Your task to perform on an android device: turn on location history Image 0: 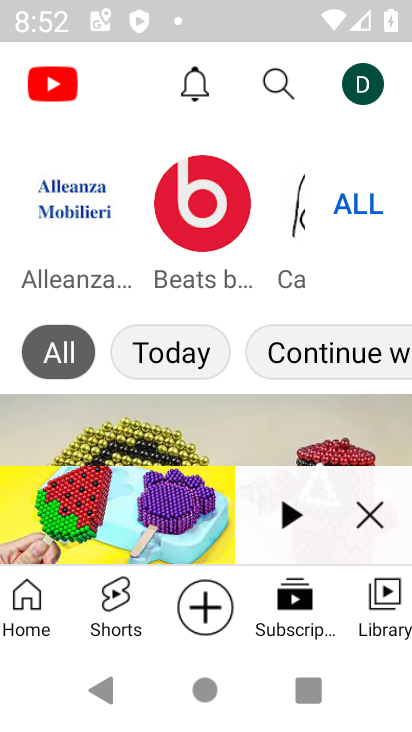
Step 0: press home button
Your task to perform on an android device: turn on location history Image 1: 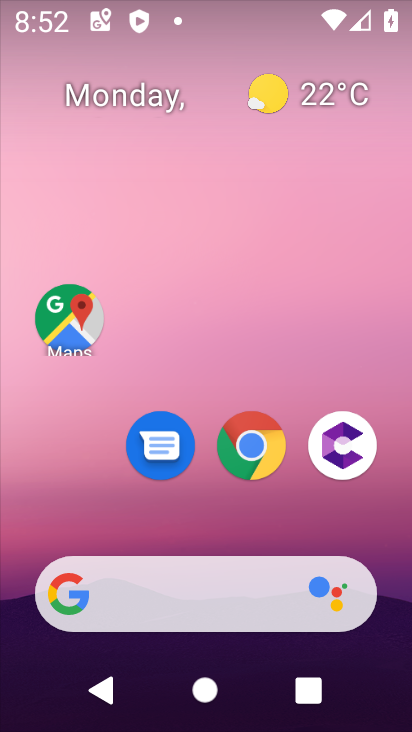
Step 1: drag from (268, 303) to (237, 86)
Your task to perform on an android device: turn on location history Image 2: 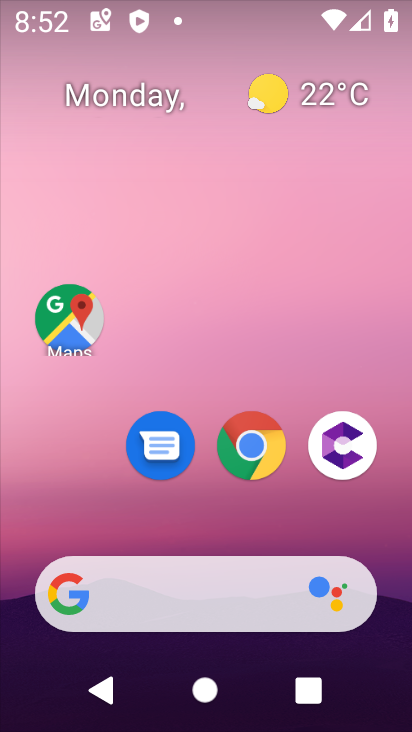
Step 2: drag from (220, 310) to (229, 1)
Your task to perform on an android device: turn on location history Image 3: 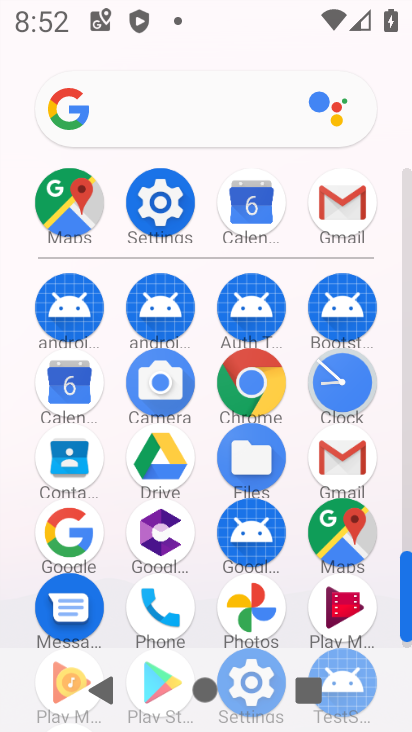
Step 3: click (172, 193)
Your task to perform on an android device: turn on location history Image 4: 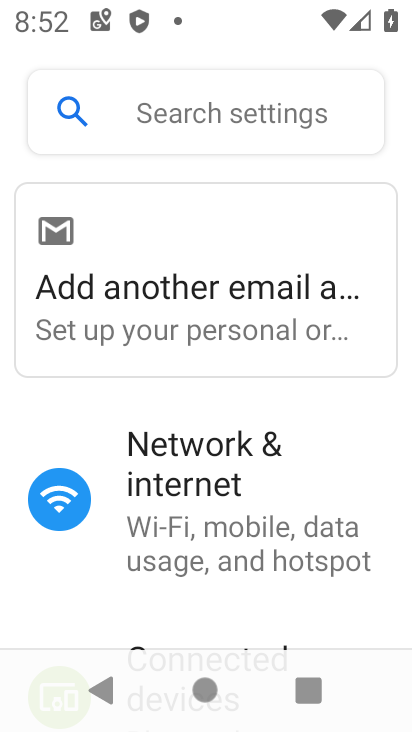
Step 4: drag from (64, 577) to (102, 107)
Your task to perform on an android device: turn on location history Image 5: 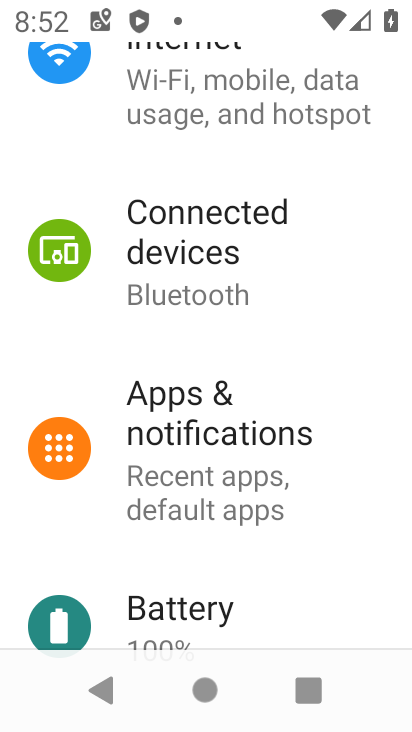
Step 5: drag from (72, 529) to (98, 102)
Your task to perform on an android device: turn on location history Image 6: 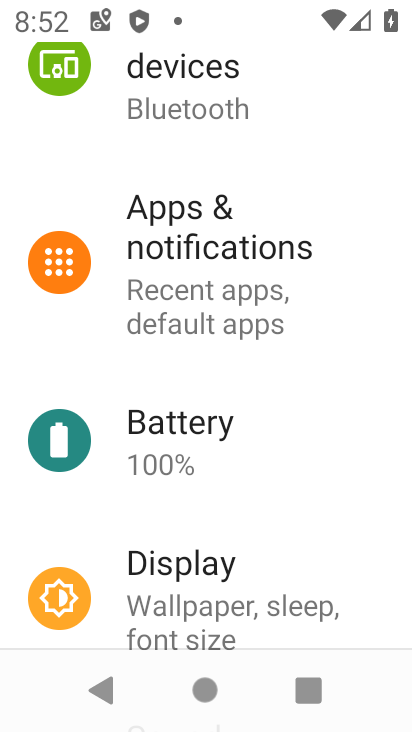
Step 6: drag from (70, 533) to (162, 16)
Your task to perform on an android device: turn on location history Image 7: 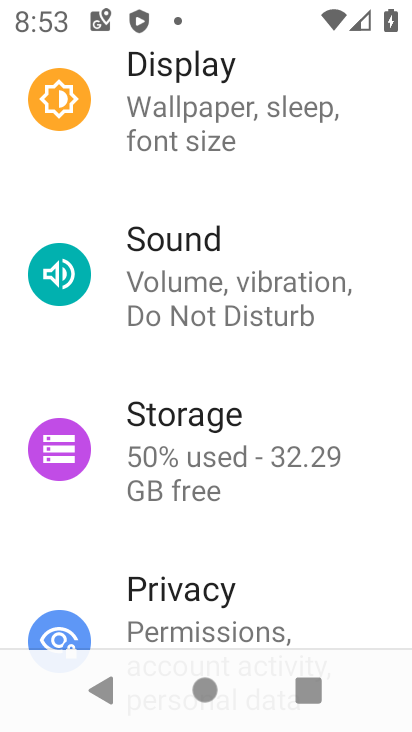
Step 7: drag from (40, 540) to (88, 91)
Your task to perform on an android device: turn on location history Image 8: 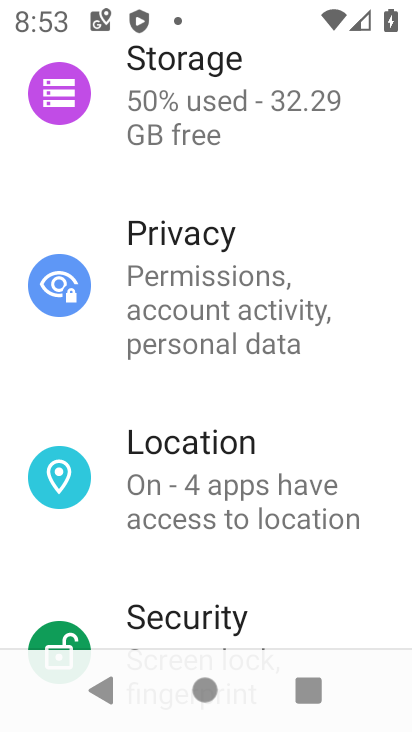
Step 8: click (230, 465)
Your task to perform on an android device: turn on location history Image 9: 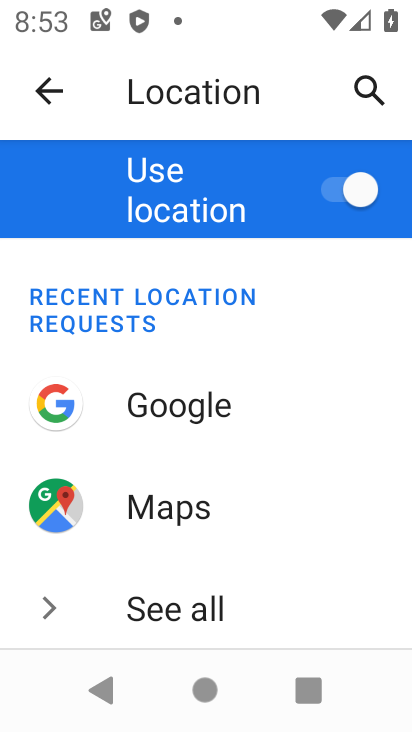
Step 9: drag from (370, 591) to (346, 162)
Your task to perform on an android device: turn on location history Image 10: 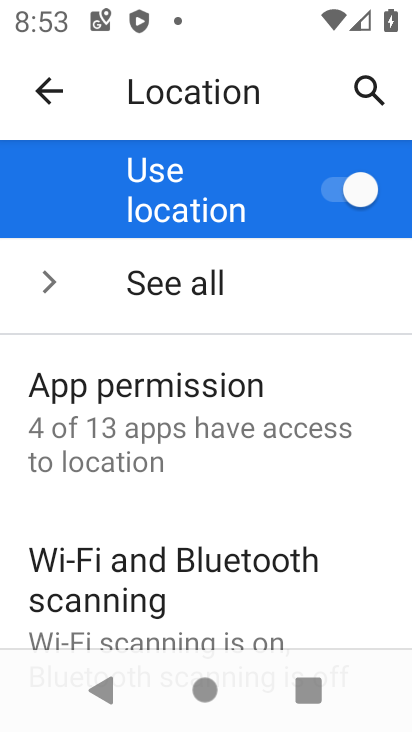
Step 10: drag from (333, 506) to (333, 237)
Your task to perform on an android device: turn on location history Image 11: 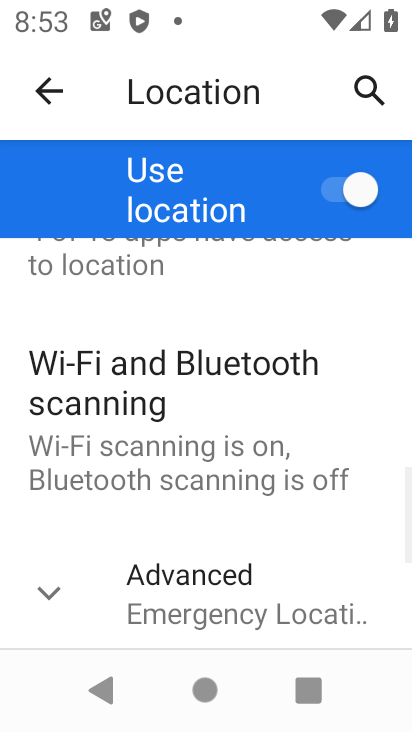
Step 11: click (38, 581)
Your task to perform on an android device: turn on location history Image 12: 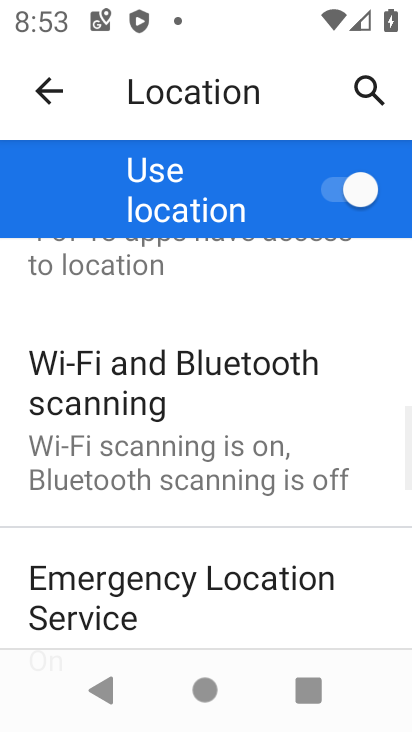
Step 12: drag from (365, 523) to (347, 237)
Your task to perform on an android device: turn on location history Image 13: 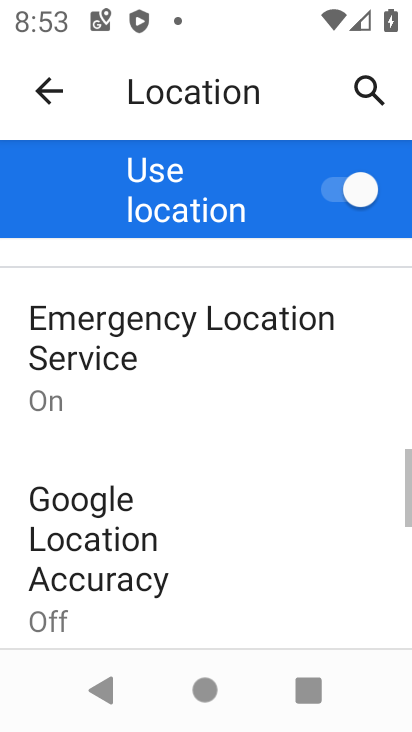
Step 13: drag from (318, 434) to (297, 239)
Your task to perform on an android device: turn on location history Image 14: 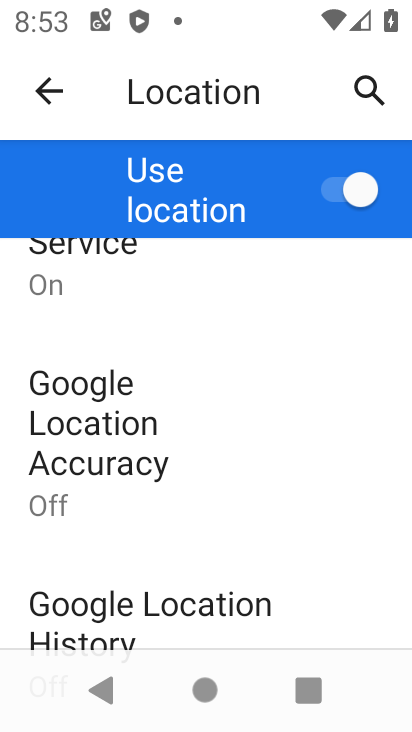
Step 14: click (202, 604)
Your task to perform on an android device: turn on location history Image 15: 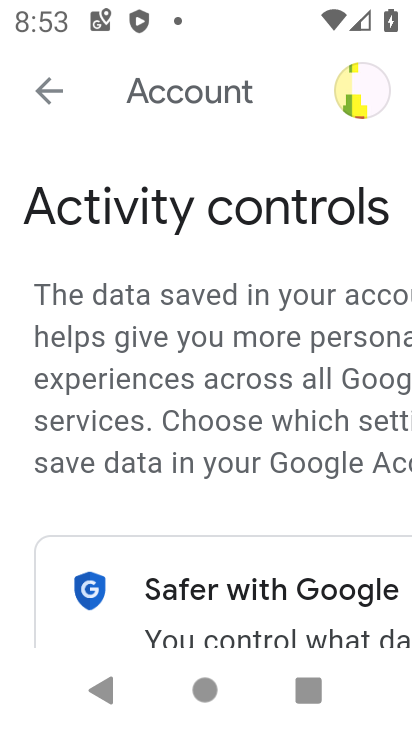
Step 15: drag from (224, 508) to (74, 3)
Your task to perform on an android device: turn on location history Image 16: 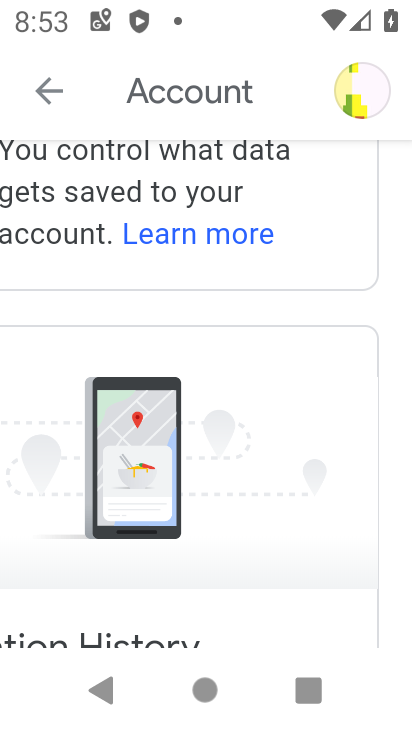
Step 16: drag from (280, 605) to (229, 121)
Your task to perform on an android device: turn on location history Image 17: 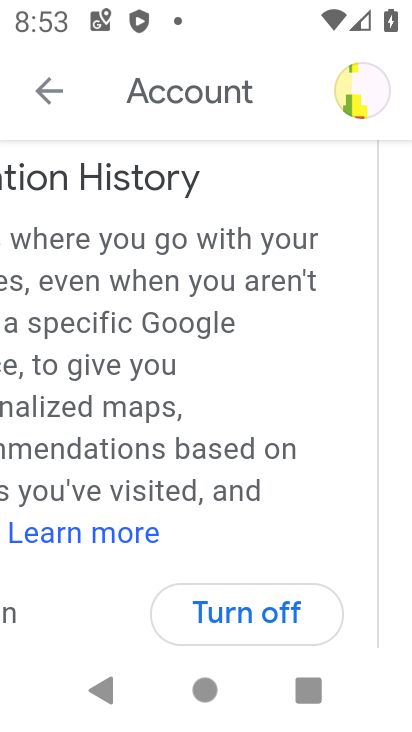
Step 17: drag from (235, 413) to (366, 315)
Your task to perform on an android device: turn on location history Image 18: 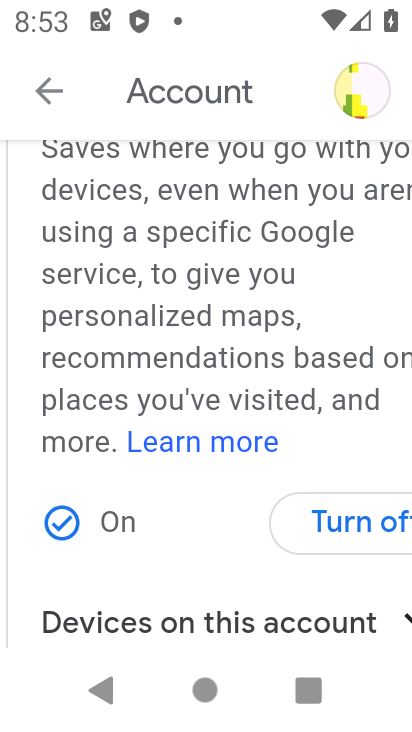
Step 18: click (116, 520)
Your task to perform on an android device: turn on location history Image 19: 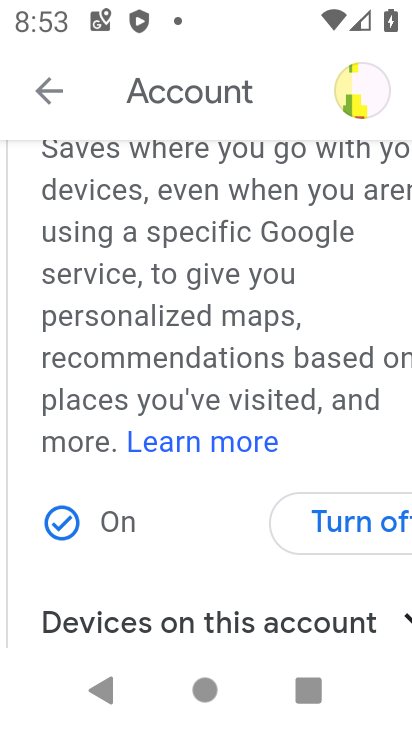
Step 19: click (369, 511)
Your task to perform on an android device: turn on location history Image 20: 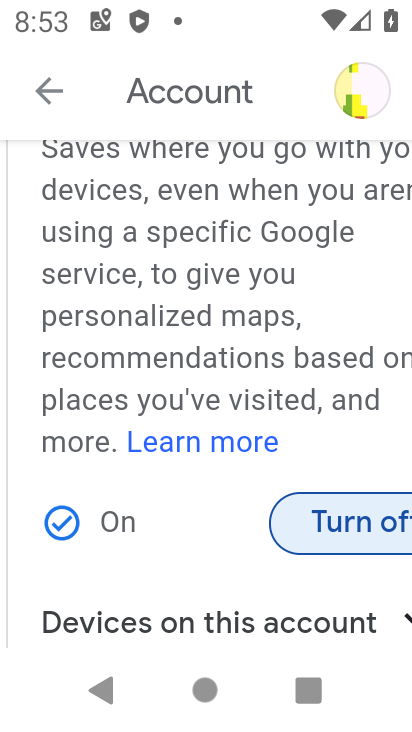
Step 20: drag from (284, 338) to (168, 171)
Your task to perform on an android device: turn on location history Image 21: 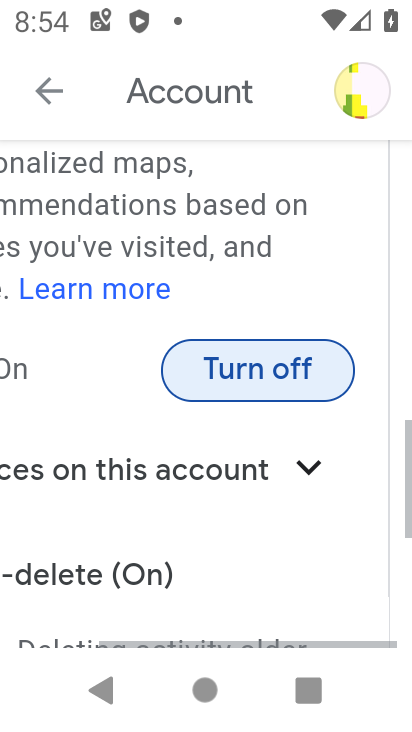
Step 21: click (255, 367)
Your task to perform on an android device: turn on location history Image 22: 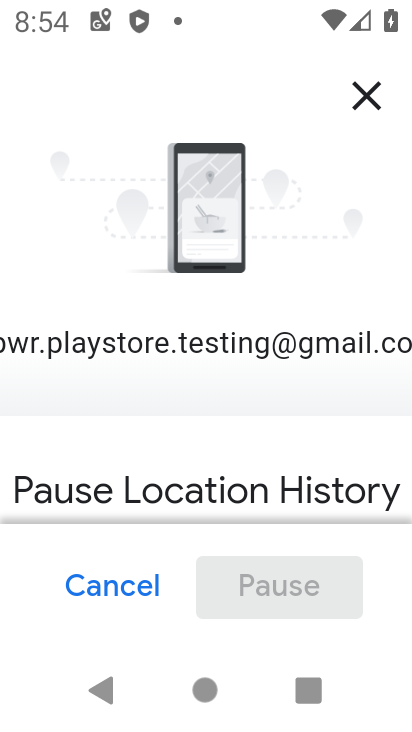
Step 22: drag from (303, 485) to (305, 126)
Your task to perform on an android device: turn on location history Image 23: 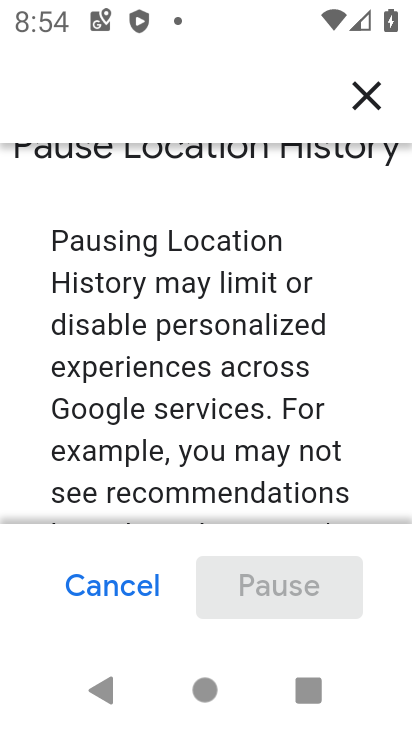
Step 23: drag from (299, 387) to (266, 25)
Your task to perform on an android device: turn on location history Image 24: 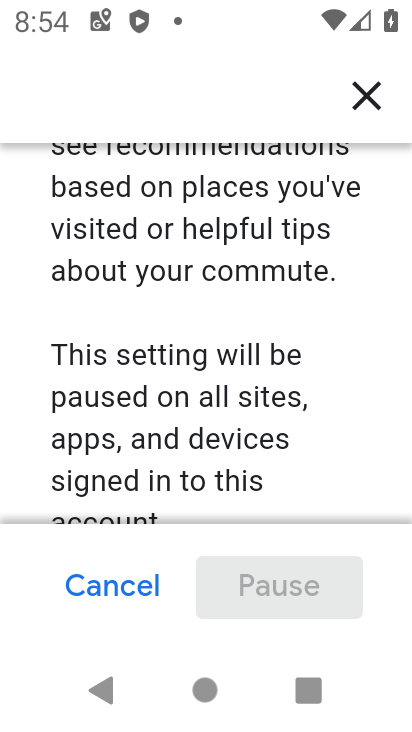
Step 24: drag from (254, 413) to (258, 13)
Your task to perform on an android device: turn on location history Image 25: 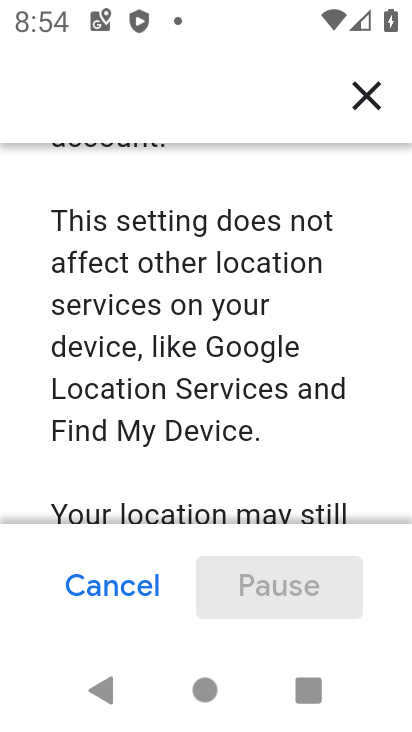
Step 25: drag from (311, 373) to (296, 86)
Your task to perform on an android device: turn on location history Image 26: 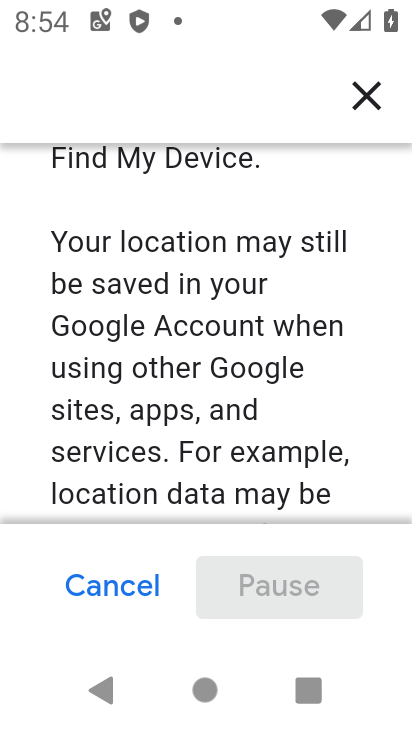
Step 26: drag from (272, 476) to (288, 48)
Your task to perform on an android device: turn on location history Image 27: 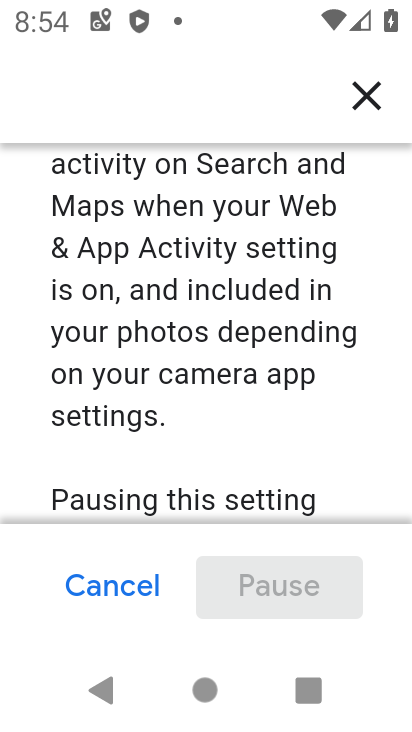
Step 27: drag from (356, 405) to (337, 6)
Your task to perform on an android device: turn on location history Image 28: 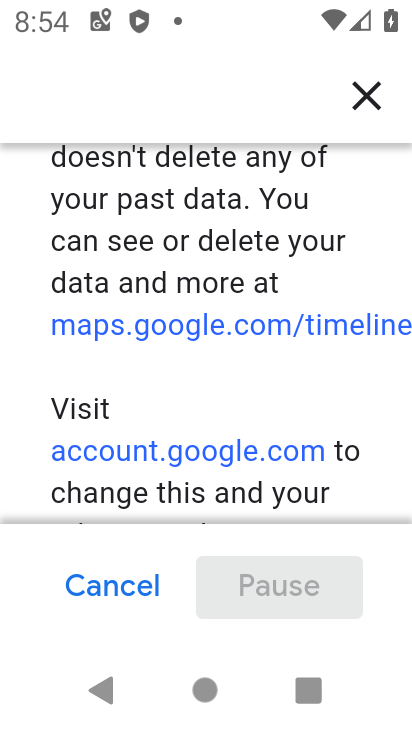
Step 28: drag from (291, 401) to (318, 1)
Your task to perform on an android device: turn on location history Image 29: 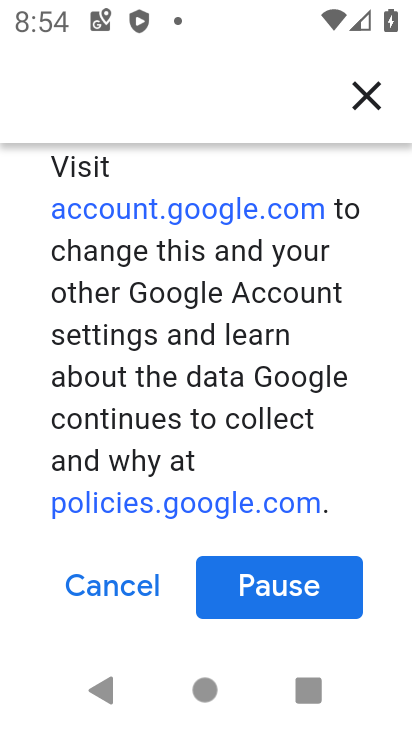
Step 29: click (272, 582)
Your task to perform on an android device: turn on location history Image 30: 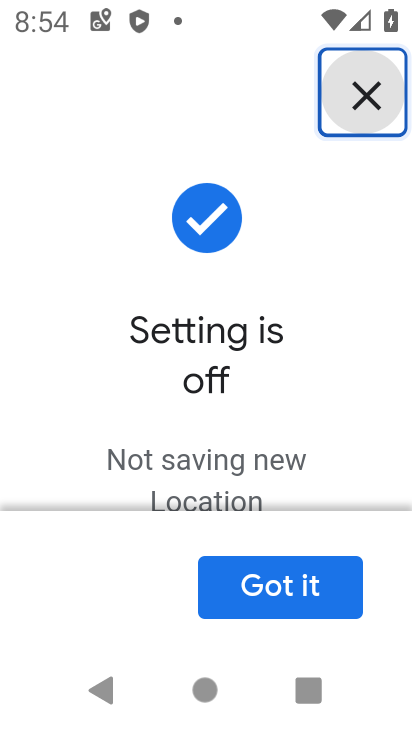
Step 30: click (300, 581)
Your task to perform on an android device: turn on location history Image 31: 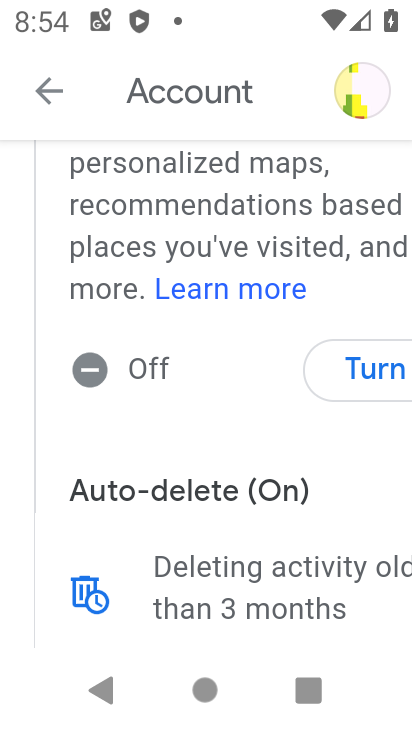
Step 31: task complete